Your task to perform on an android device: Open Chrome and go to settings Image 0: 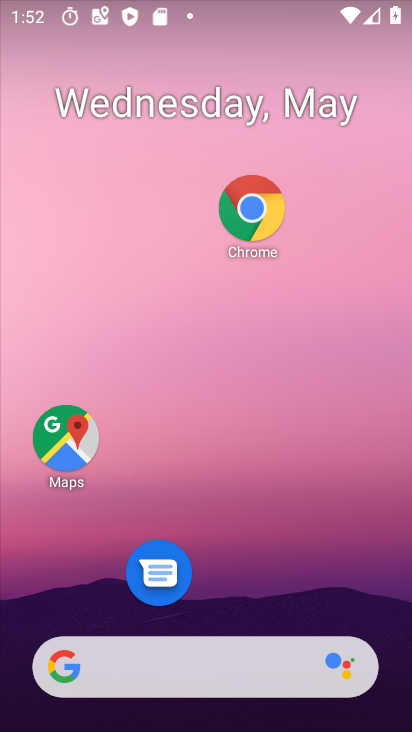
Step 0: click (259, 213)
Your task to perform on an android device: Open Chrome and go to settings Image 1: 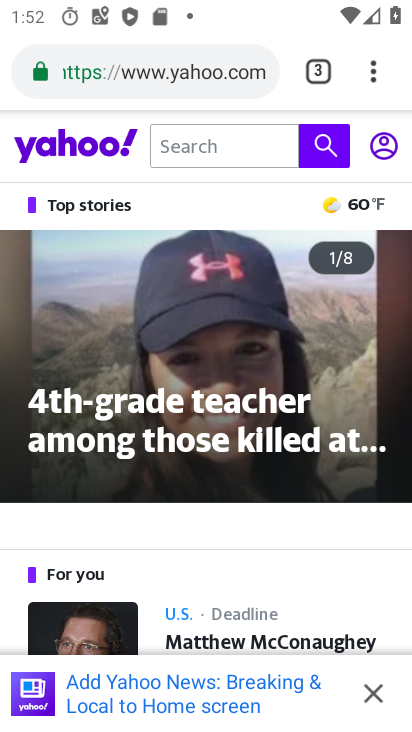
Step 1: click (384, 77)
Your task to perform on an android device: Open Chrome and go to settings Image 2: 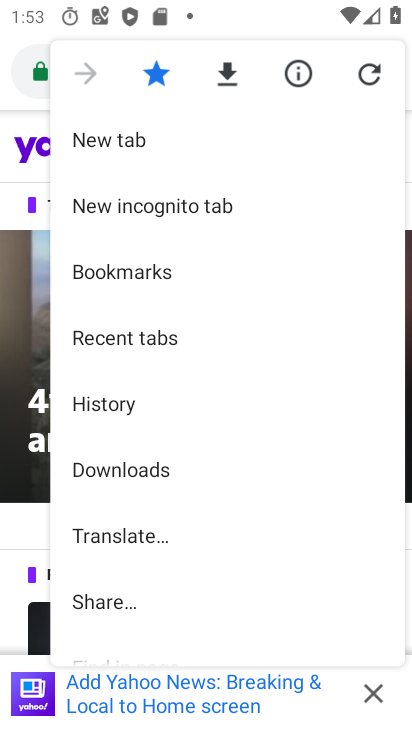
Step 2: drag from (169, 584) to (205, 249)
Your task to perform on an android device: Open Chrome and go to settings Image 3: 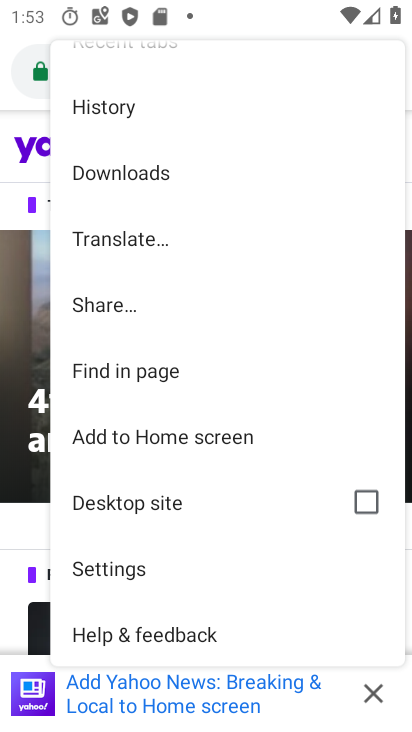
Step 3: click (138, 589)
Your task to perform on an android device: Open Chrome and go to settings Image 4: 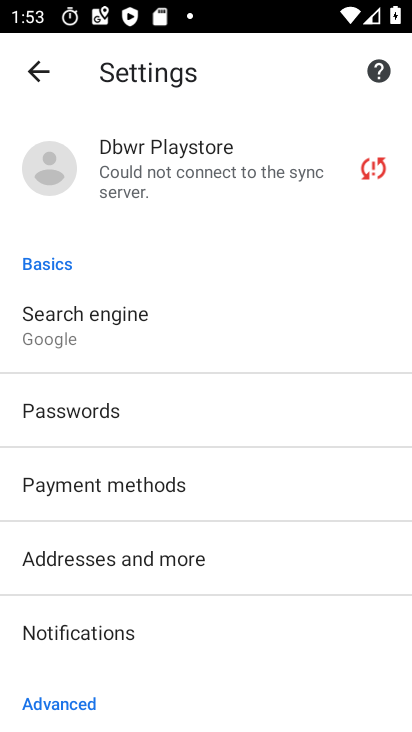
Step 4: task complete